Your task to perform on an android device: Search for the best rated Bluetooth earbuds on Ali express Image 0: 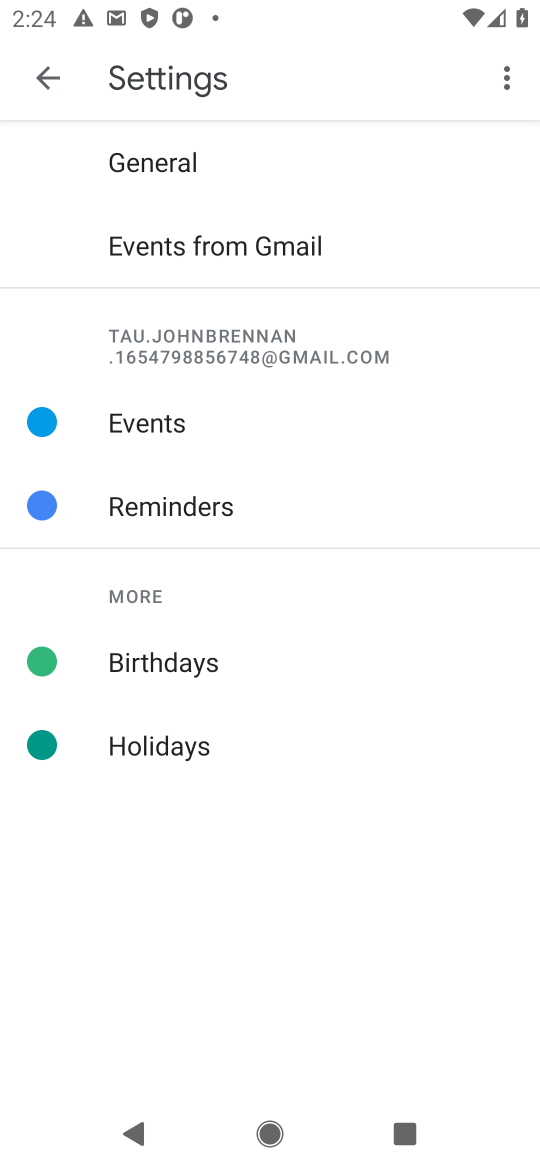
Step 0: press home button
Your task to perform on an android device: Search for the best rated Bluetooth earbuds on Ali express Image 1: 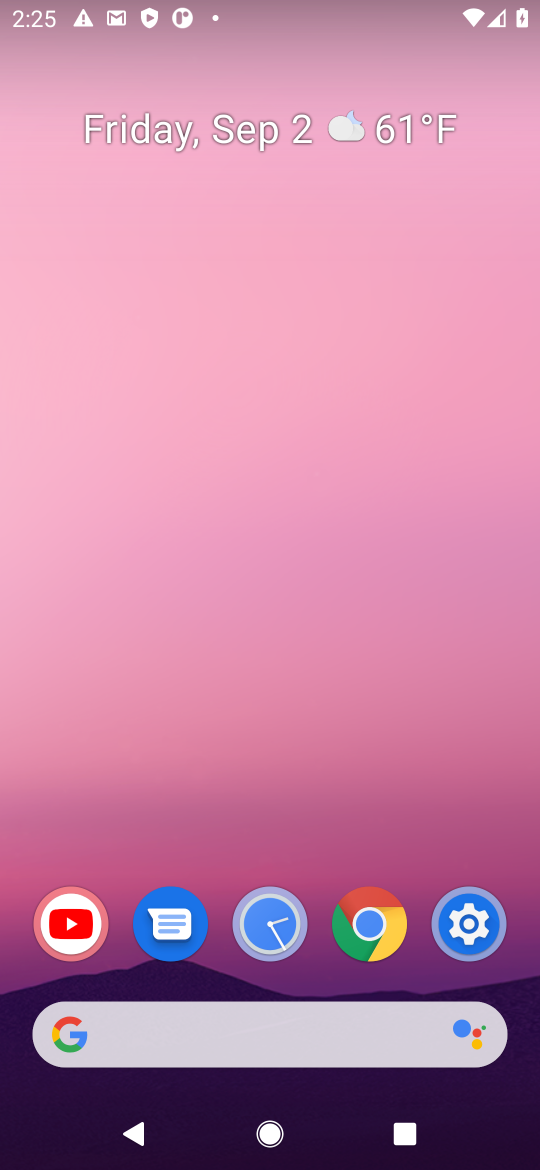
Step 1: click (350, 1043)
Your task to perform on an android device: Search for the best rated Bluetooth earbuds on Ali express Image 2: 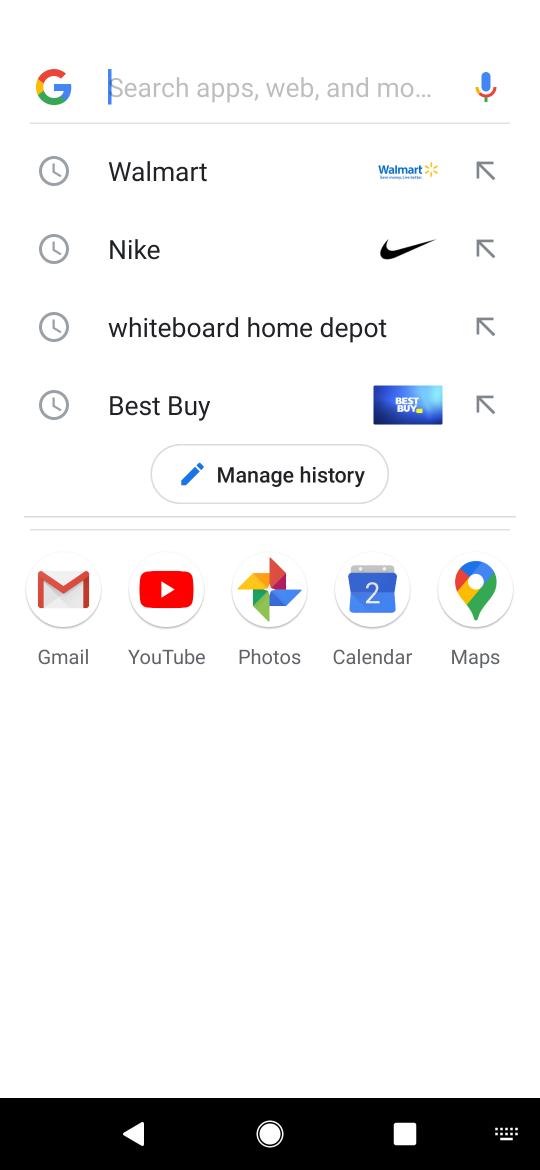
Step 2: press enter
Your task to perform on an android device: Search for the best rated Bluetooth earbuds on Ali express Image 3: 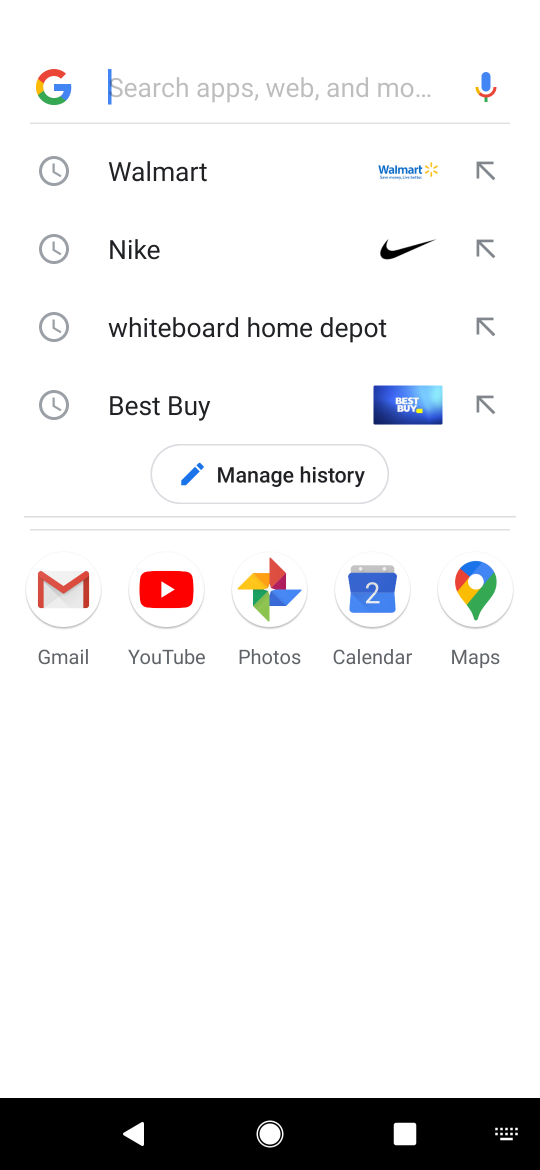
Step 3: type "ali express"
Your task to perform on an android device: Search for the best rated Bluetooth earbuds on Ali express Image 4: 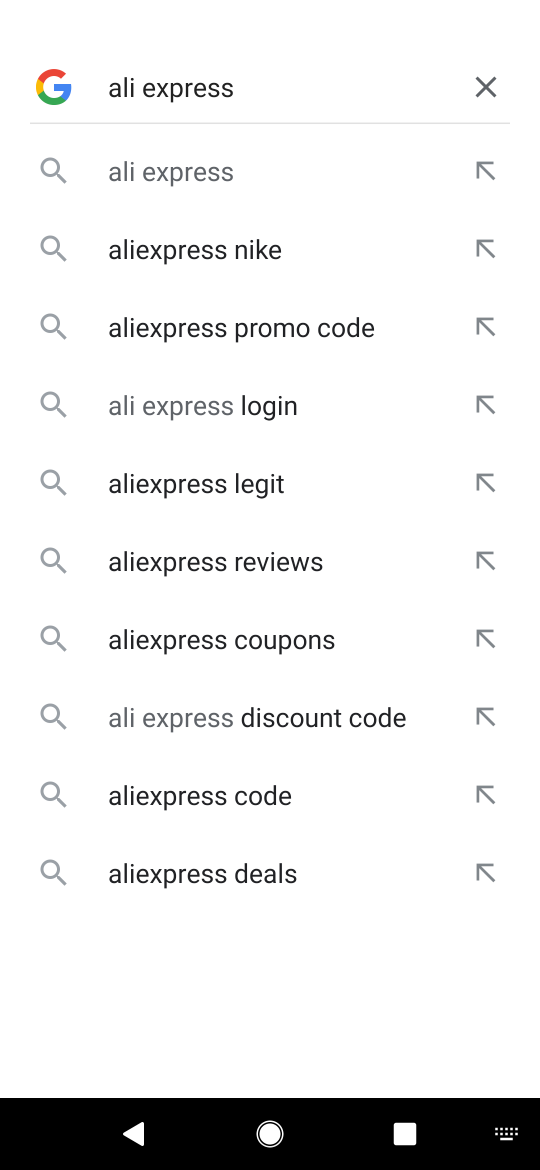
Step 4: click (199, 168)
Your task to perform on an android device: Search for the best rated Bluetooth earbuds on Ali express Image 5: 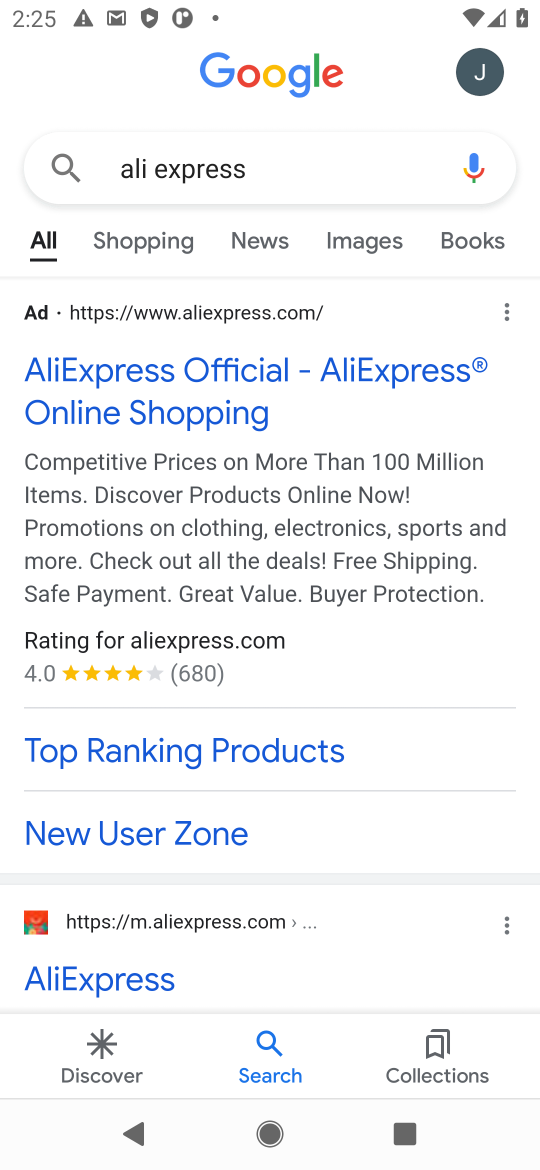
Step 5: click (272, 372)
Your task to perform on an android device: Search for the best rated Bluetooth earbuds on Ali express Image 6: 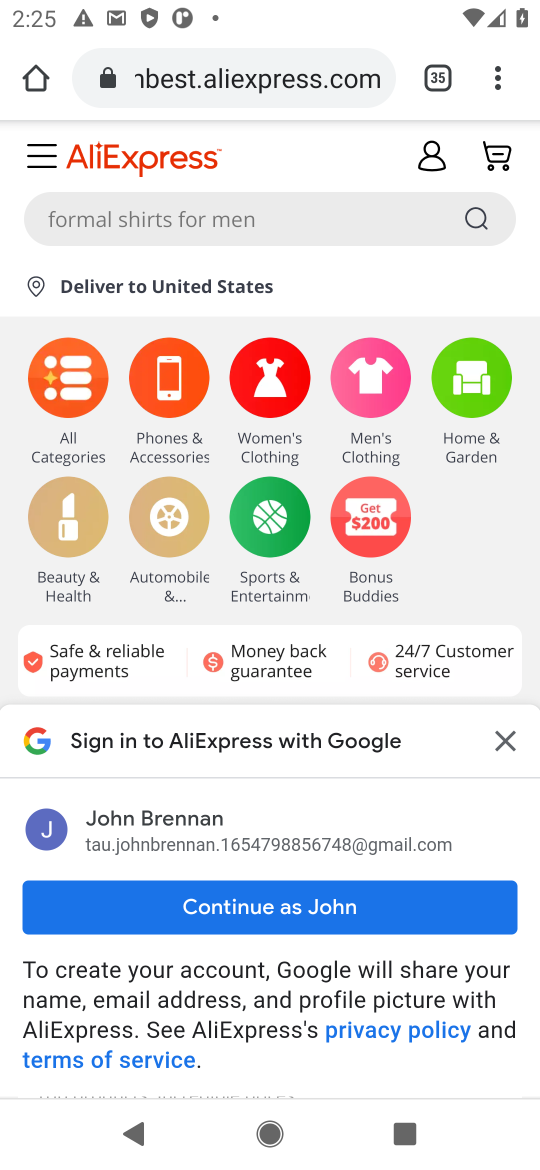
Step 6: click (301, 208)
Your task to perform on an android device: Search for the best rated Bluetooth earbuds on Ali express Image 7: 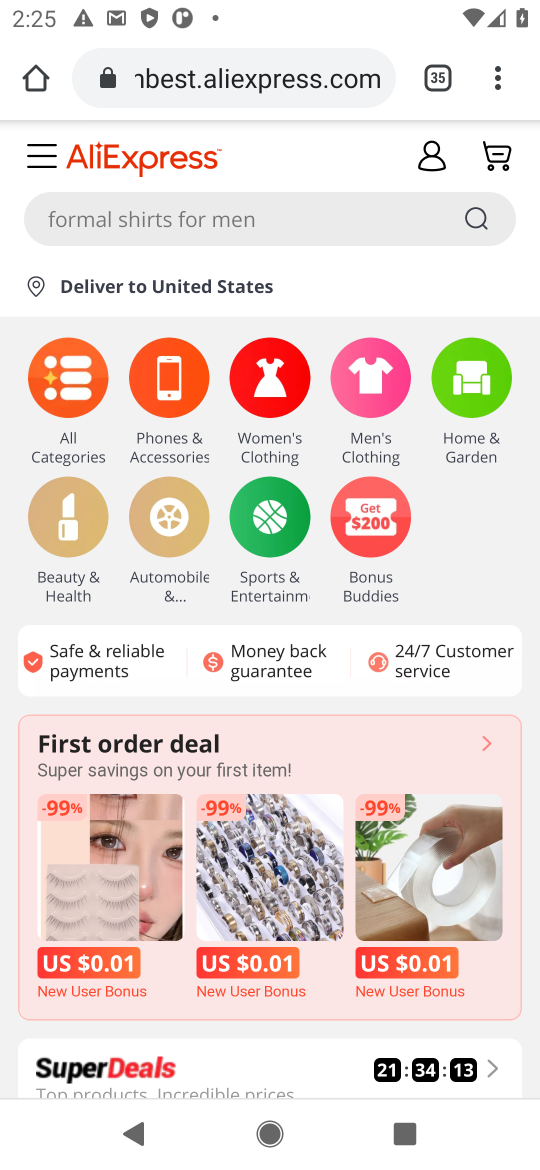
Step 7: click (77, 217)
Your task to perform on an android device: Search for the best rated Bluetooth earbuds on Ali express Image 8: 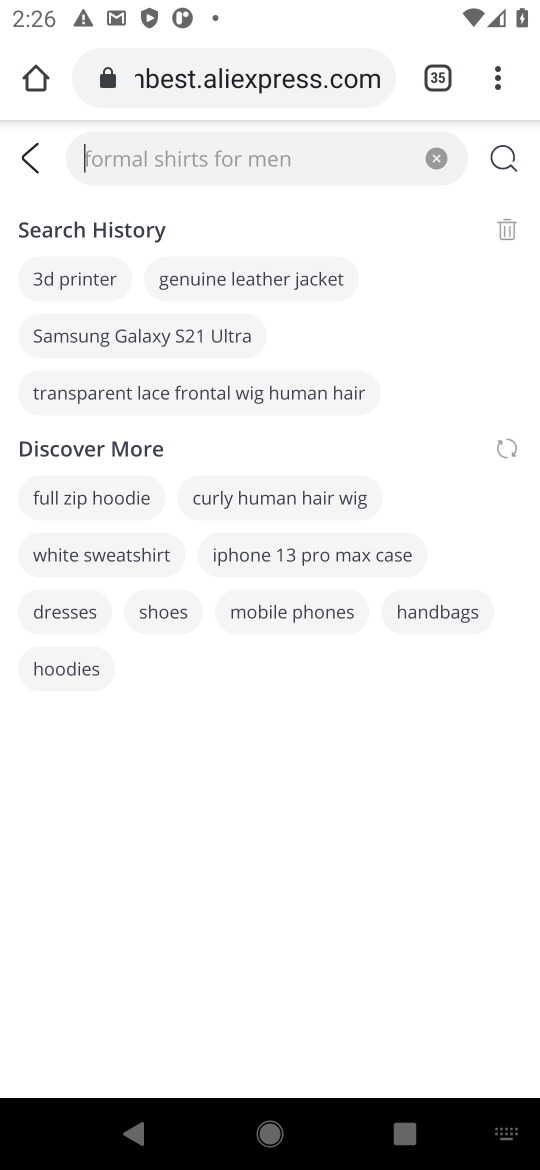
Step 8: type "bluetooth earbuds"
Your task to perform on an android device: Search for the best rated Bluetooth earbuds on Ali express Image 9: 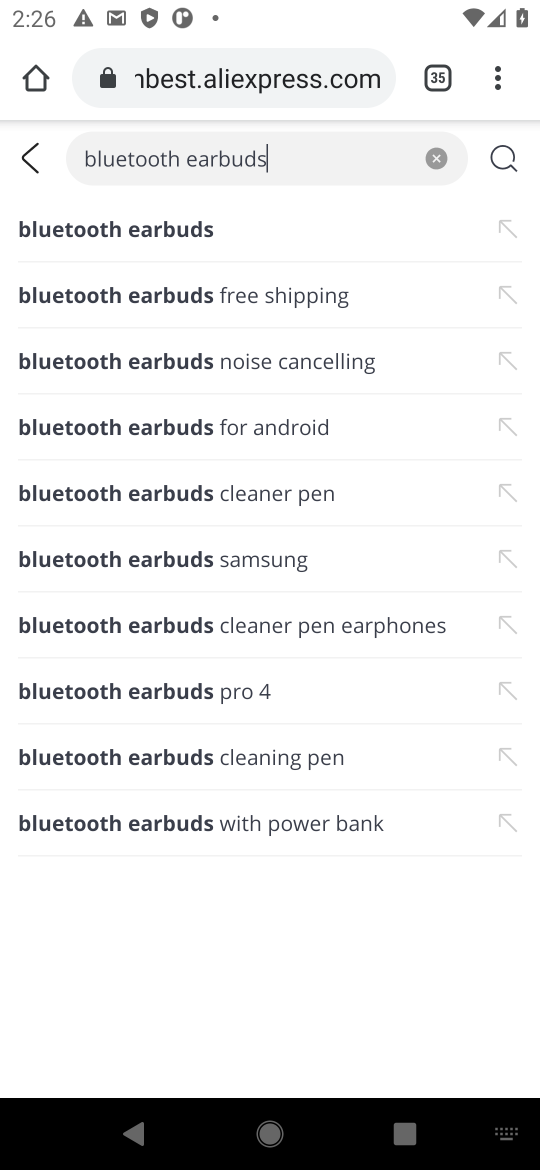
Step 9: click (196, 228)
Your task to perform on an android device: Search for the best rated Bluetooth earbuds on Ali express Image 10: 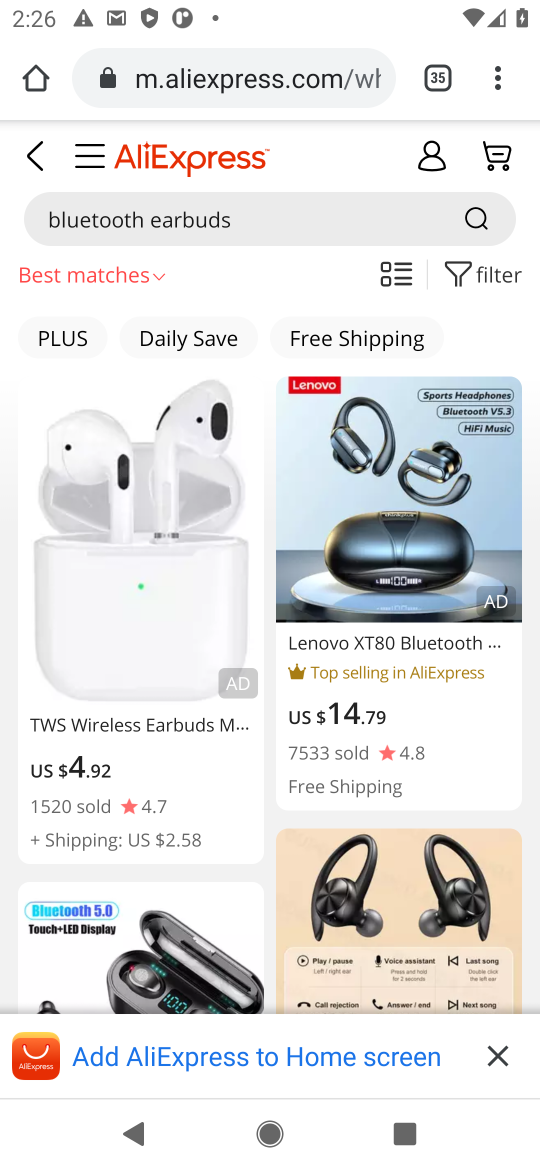
Step 10: task complete